Your task to perform on an android device: change timer sound Image 0: 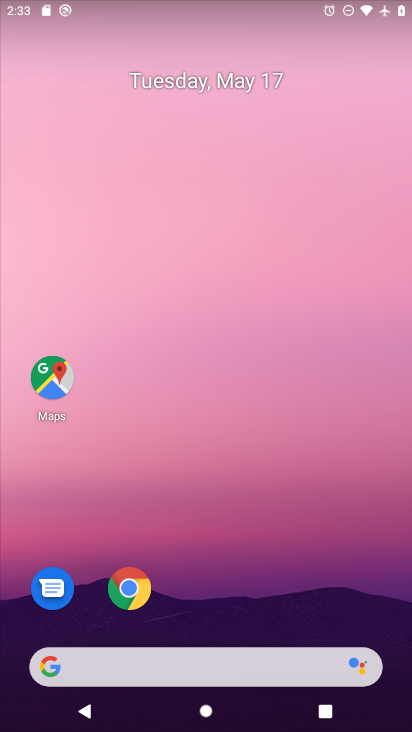
Step 0: drag from (166, 604) to (160, 236)
Your task to perform on an android device: change timer sound Image 1: 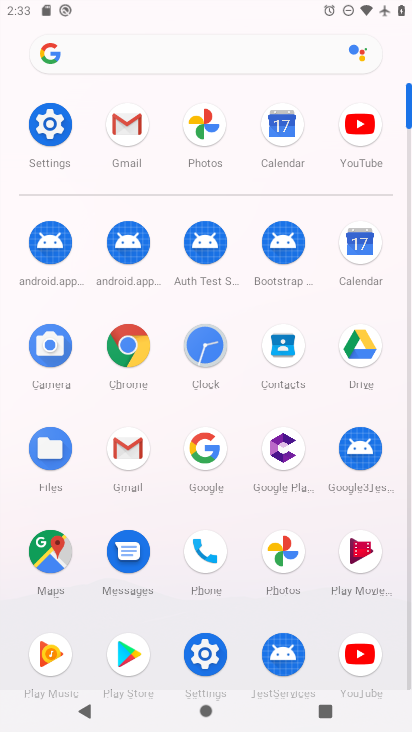
Step 1: click (204, 360)
Your task to perform on an android device: change timer sound Image 2: 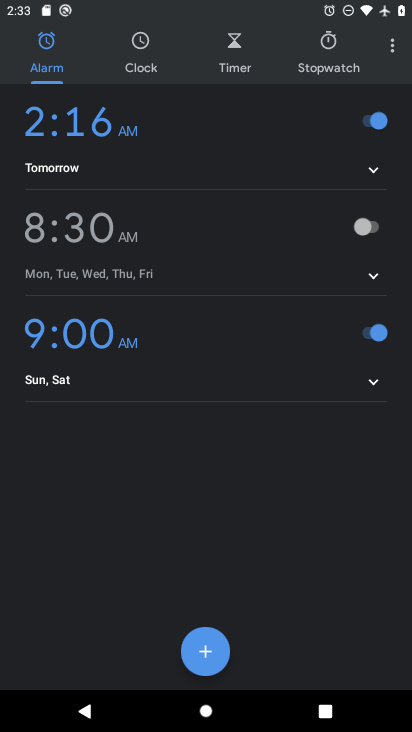
Step 2: click (393, 41)
Your task to perform on an android device: change timer sound Image 3: 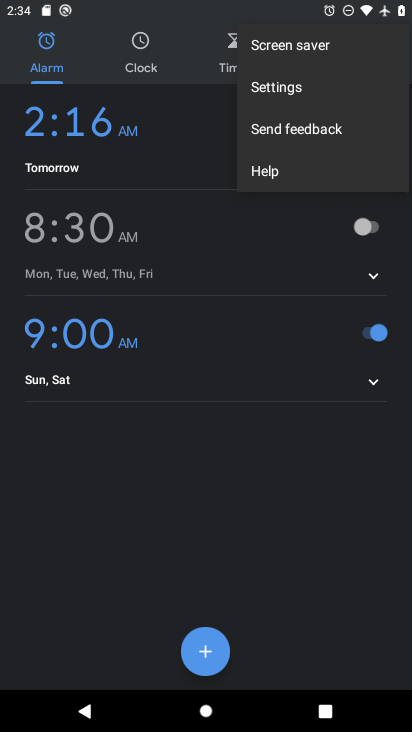
Step 3: click (281, 92)
Your task to perform on an android device: change timer sound Image 4: 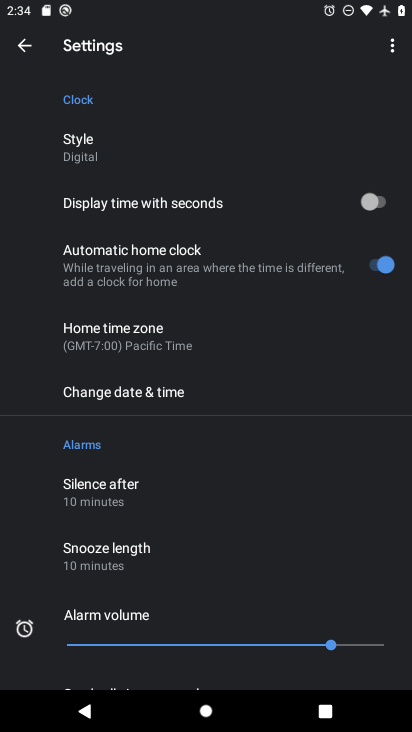
Step 4: drag from (209, 584) to (197, 313)
Your task to perform on an android device: change timer sound Image 5: 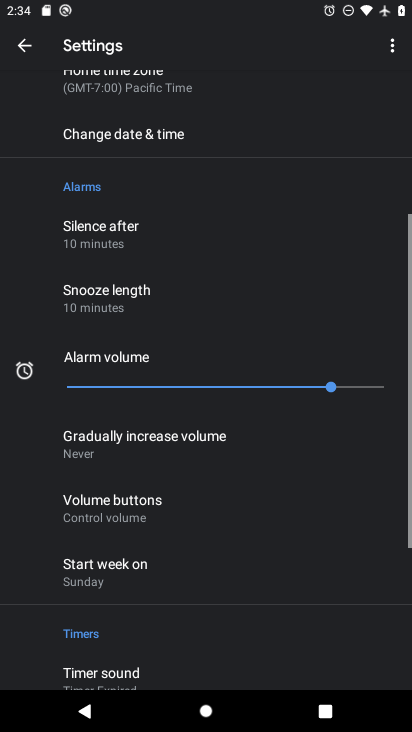
Step 5: drag from (144, 603) to (156, 374)
Your task to perform on an android device: change timer sound Image 6: 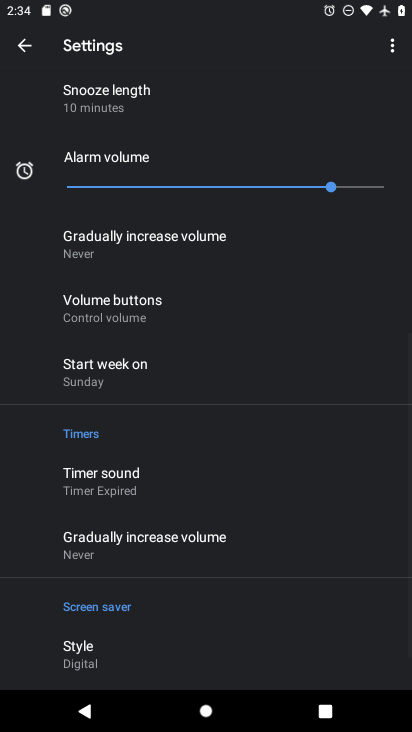
Step 6: click (106, 483)
Your task to perform on an android device: change timer sound Image 7: 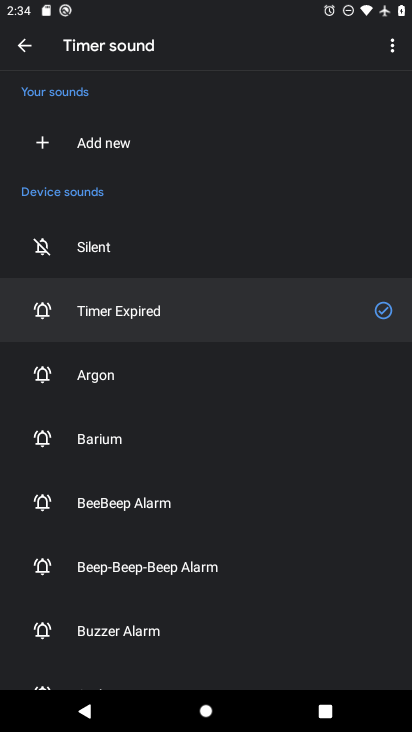
Step 7: click (89, 618)
Your task to perform on an android device: change timer sound Image 8: 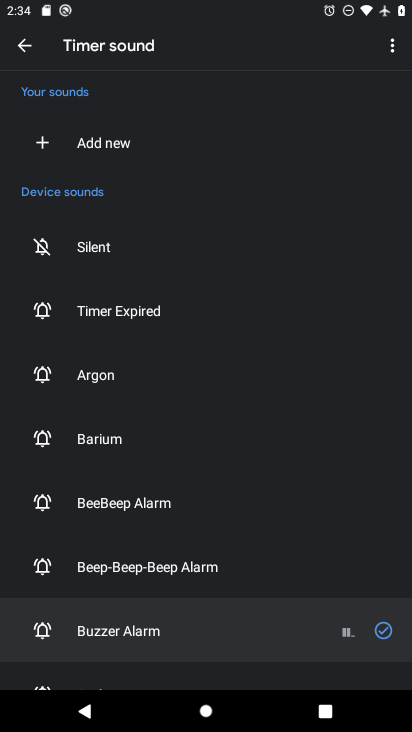
Step 8: task complete